Your task to perform on an android device: open chrome privacy settings Image 0: 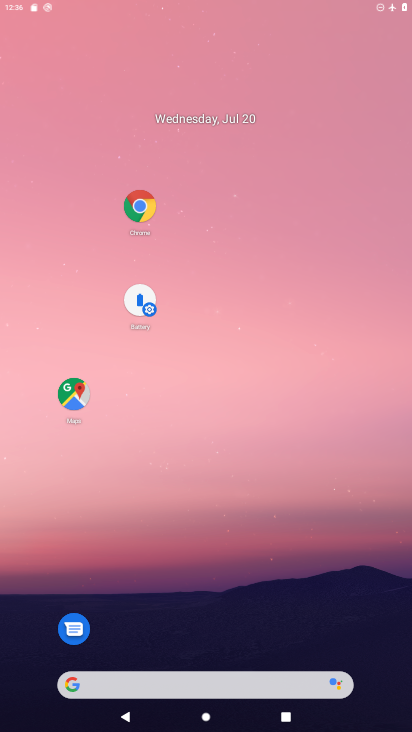
Step 0: click (177, 71)
Your task to perform on an android device: open chrome privacy settings Image 1: 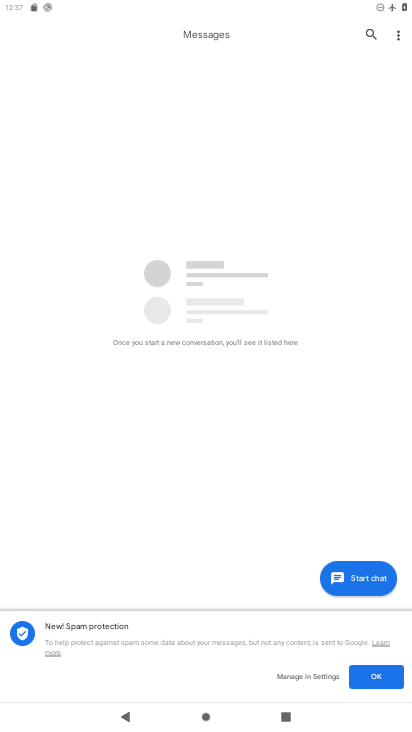
Step 1: press home button
Your task to perform on an android device: open chrome privacy settings Image 2: 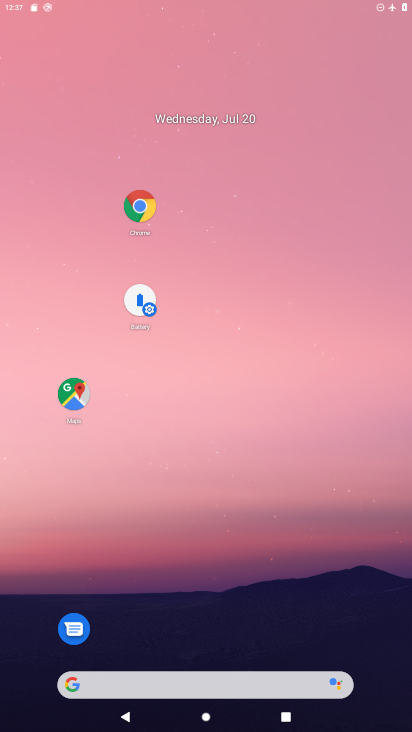
Step 2: drag from (180, 607) to (285, 133)
Your task to perform on an android device: open chrome privacy settings Image 3: 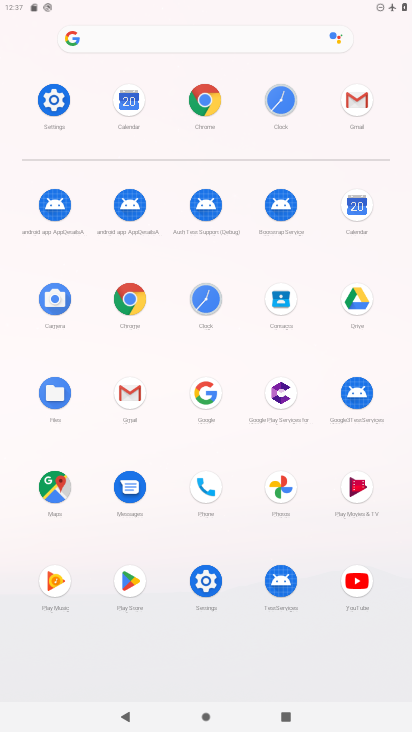
Step 3: click (208, 580)
Your task to perform on an android device: open chrome privacy settings Image 4: 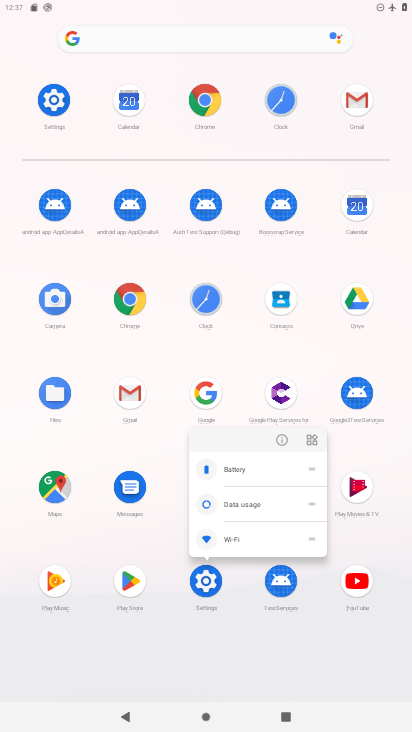
Step 4: click (122, 300)
Your task to perform on an android device: open chrome privacy settings Image 5: 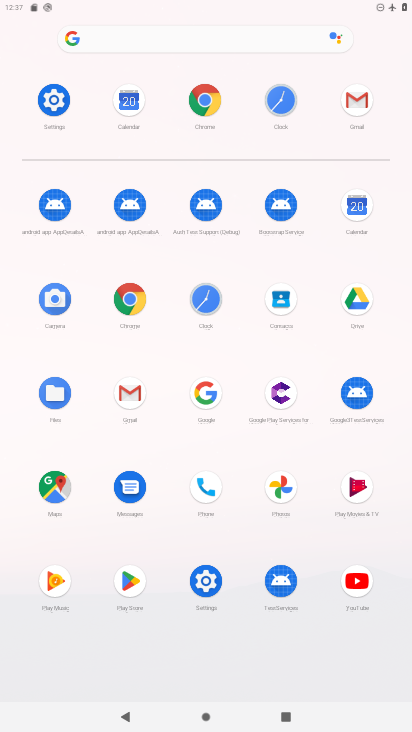
Step 5: click (126, 300)
Your task to perform on an android device: open chrome privacy settings Image 6: 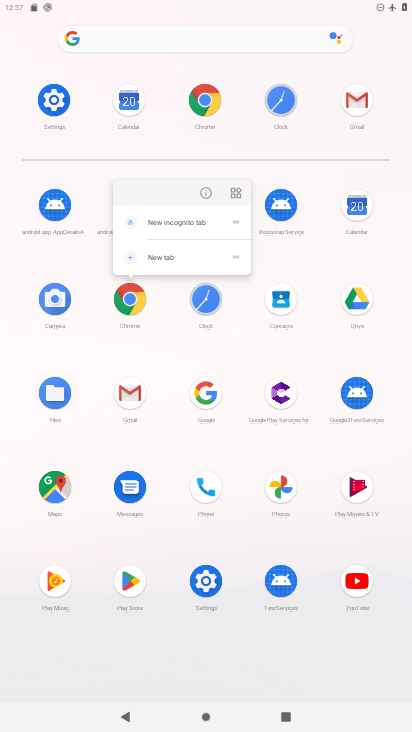
Step 6: click (204, 193)
Your task to perform on an android device: open chrome privacy settings Image 7: 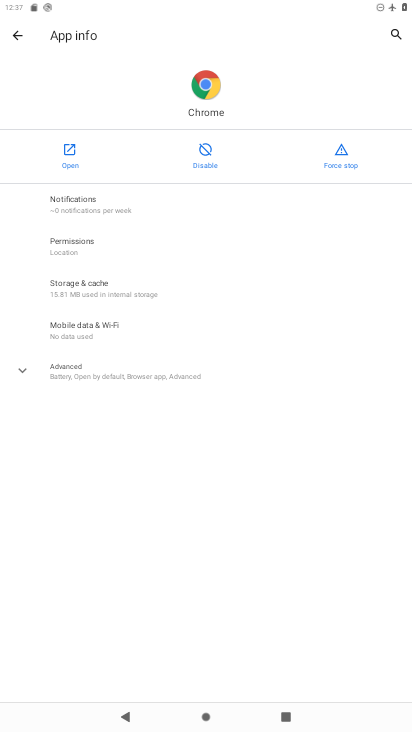
Step 7: click (51, 163)
Your task to perform on an android device: open chrome privacy settings Image 8: 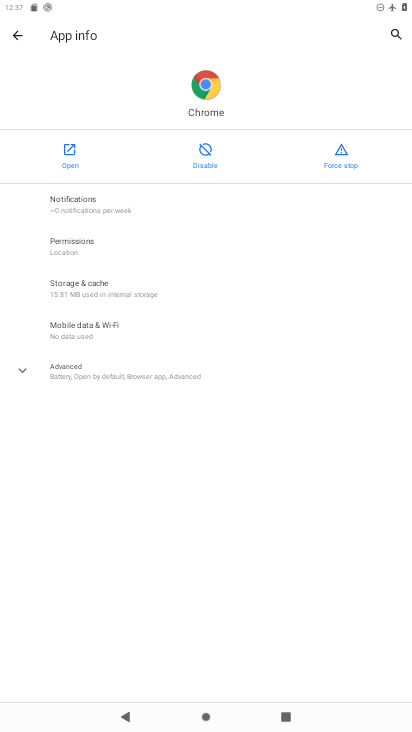
Step 8: click (51, 163)
Your task to perform on an android device: open chrome privacy settings Image 9: 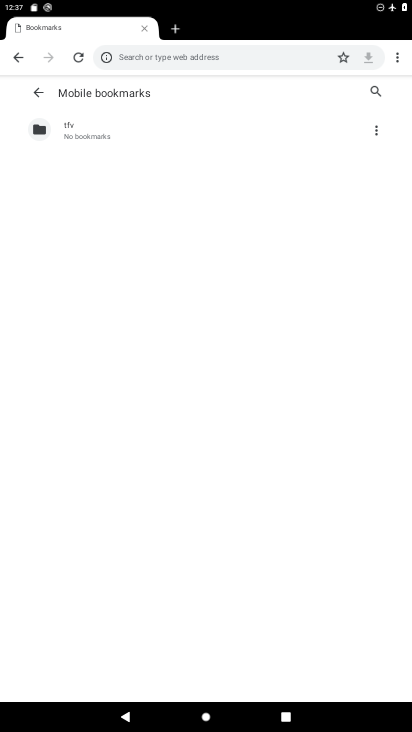
Step 9: drag from (390, 60) to (271, 268)
Your task to perform on an android device: open chrome privacy settings Image 10: 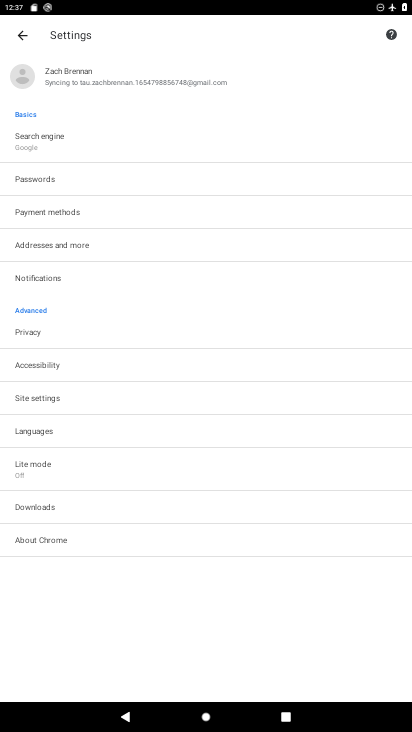
Step 10: click (64, 320)
Your task to perform on an android device: open chrome privacy settings Image 11: 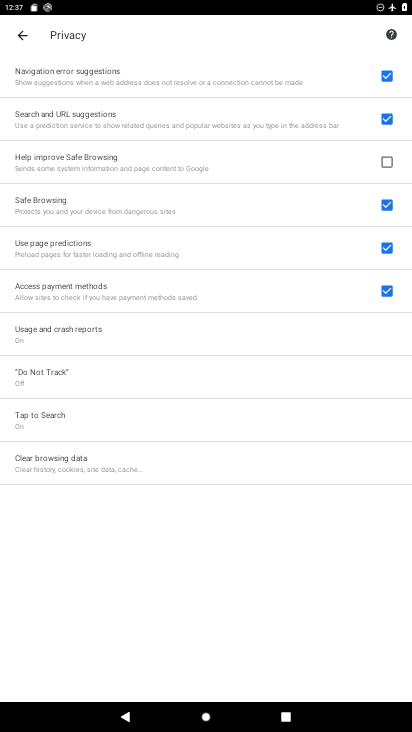
Step 11: task complete